Your task to perform on an android device: Open Wikipedia Image 0: 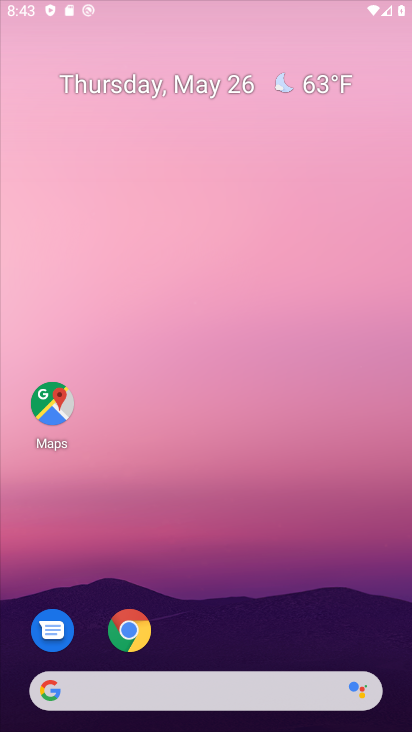
Step 0: drag from (269, 687) to (211, 3)
Your task to perform on an android device: Open Wikipedia Image 1: 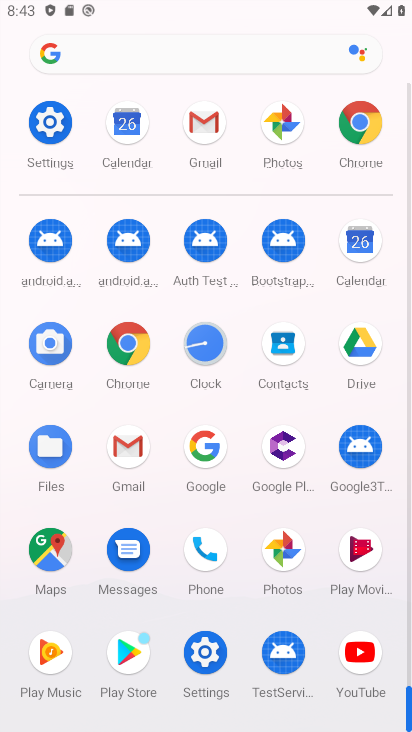
Step 1: click (361, 129)
Your task to perform on an android device: Open Wikipedia Image 2: 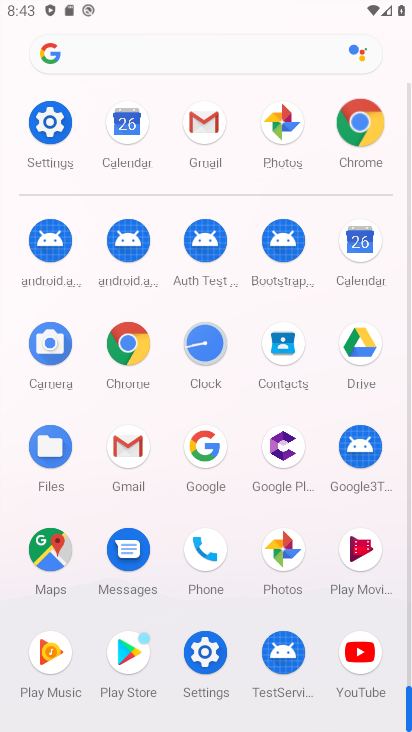
Step 2: click (362, 128)
Your task to perform on an android device: Open Wikipedia Image 3: 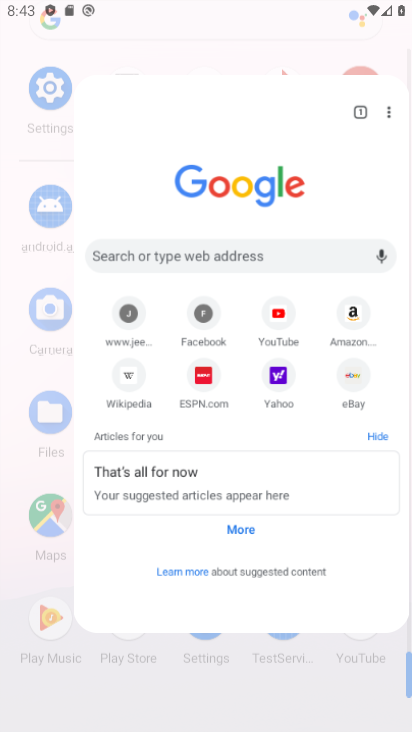
Step 3: click (363, 128)
Your task to perform on an android device: Open Wikipedia Image 4: 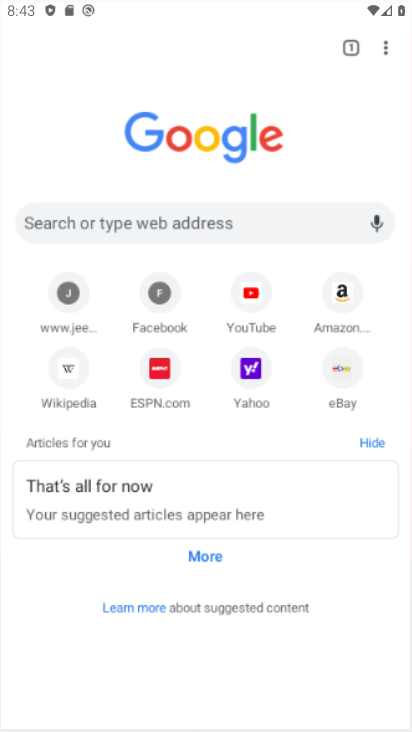
Step 4: click (363, 128)
Your task to perform on an android device: Open Wikipedia Image 5: 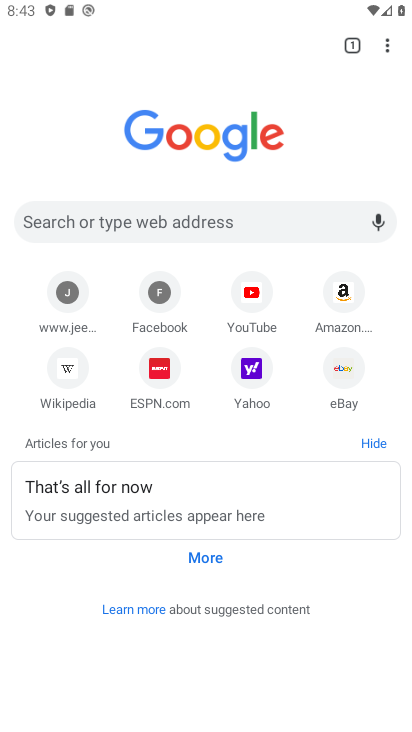
Step 5: click (74, 362)
Your task to perform on an android device: Open Wikipedia Image 6: 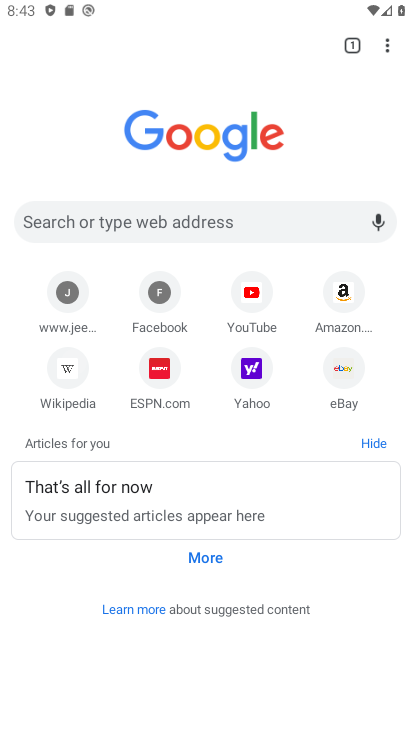
Step 6: click (74, 362)
Your task to perform on an android device: Open Wikipedia Image 7: 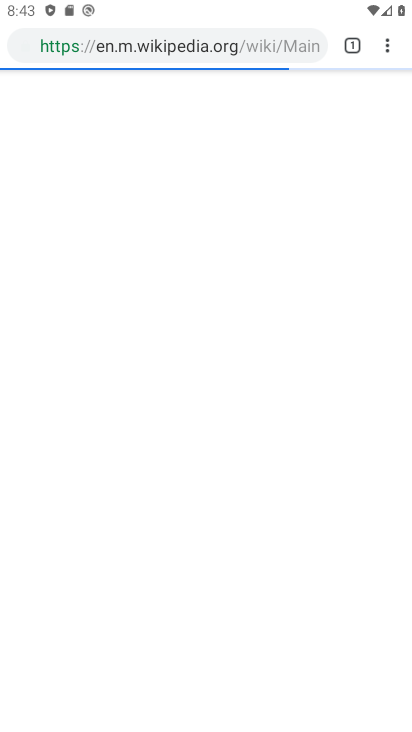
Step 7: click (75, 362)
Your task to perform on an android device: Open Wikipedia Image 8: 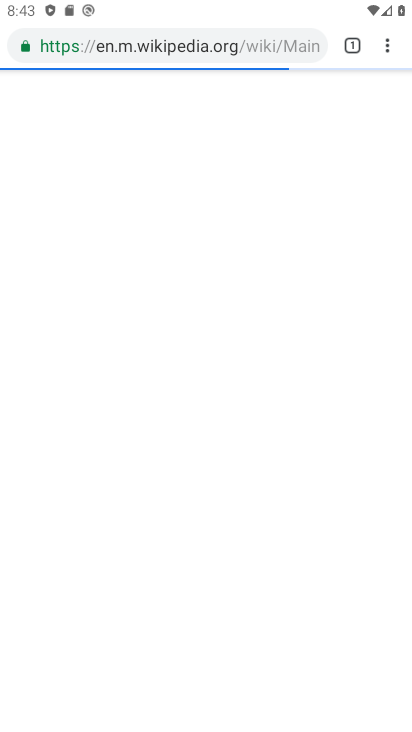
Step 8: click (76, 362)
Your task to perform on an android device: Open Wikipedia Image 9: 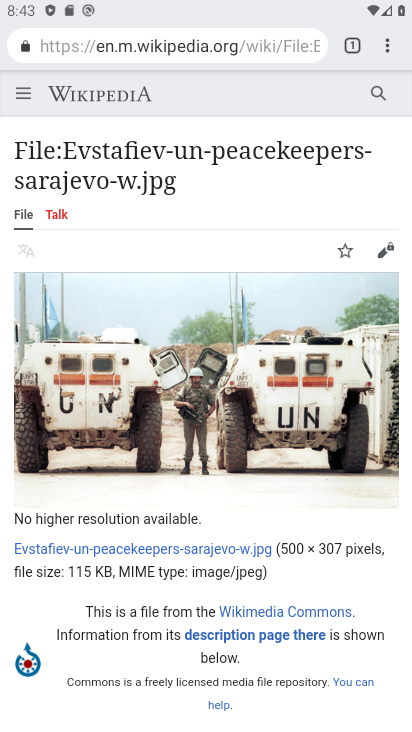
Step 9: task complete